Your task to perform on an android device: Is it going to rain tomorrow? Image 0: 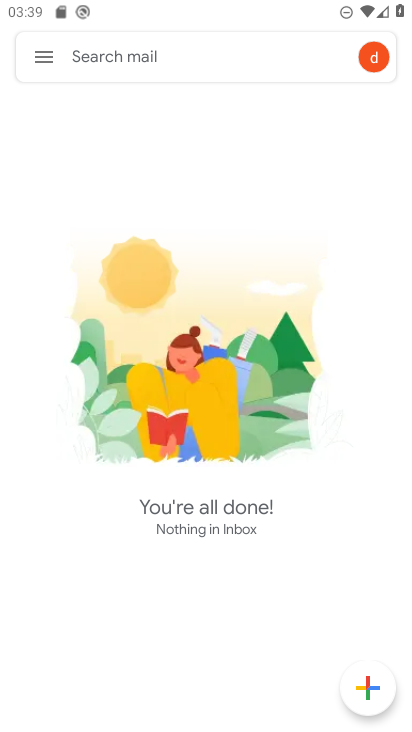
Step 0: press home button
Your task to perform on an android device: Is it going to rain tomorrow? Image 1: 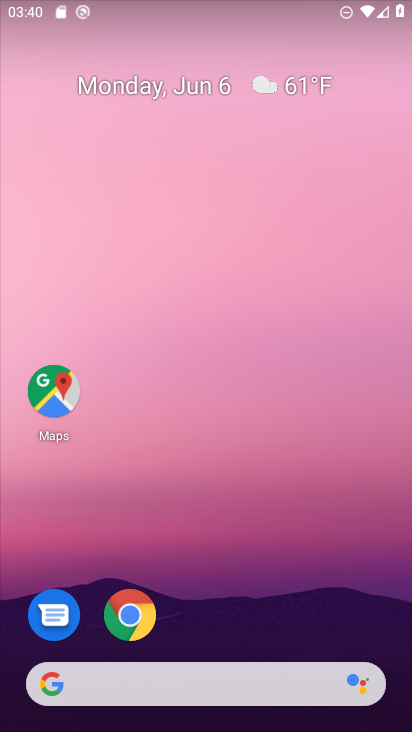
Step 1: click (283, 76)
Your task to perform on an android device: Is it going to rain tomorrow? Image 2: 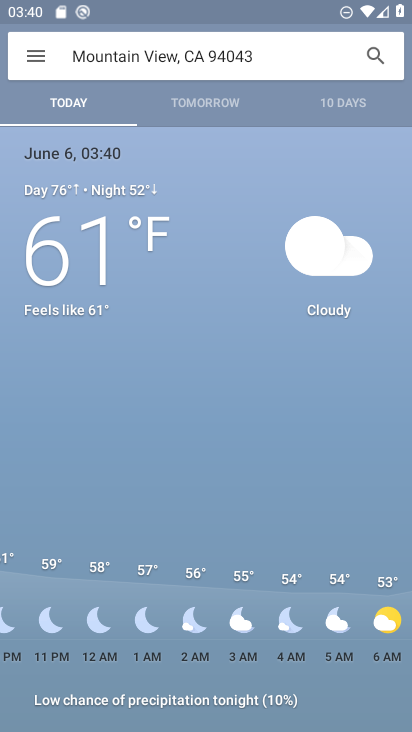
Step 2: click (214, 115)
Your task to perform on an android device: Is it going to rain tomorrow? Image 3: 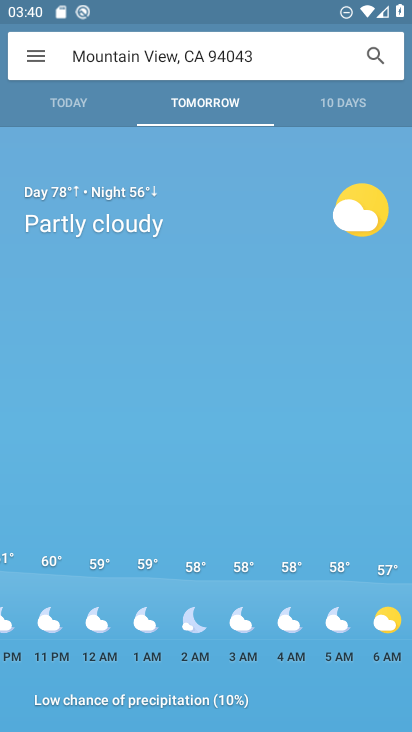
Step 3: task complete